Your task to perform on an android device: toggle wifi Image 0: 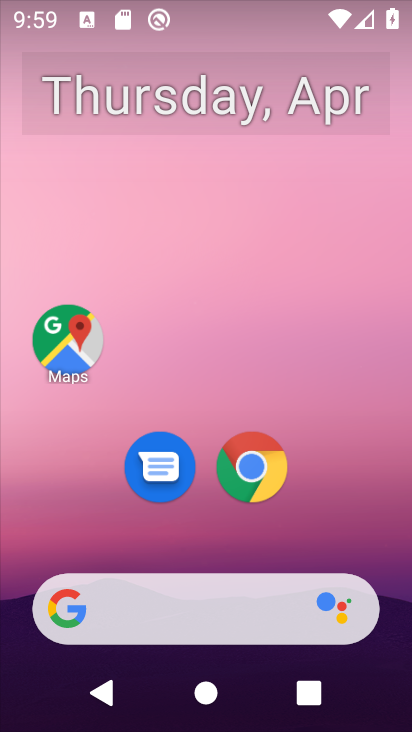
Step 0: drag from (331, 530) to (337, 125)
Your task to perform on an android device: toggle wifi Image 1: 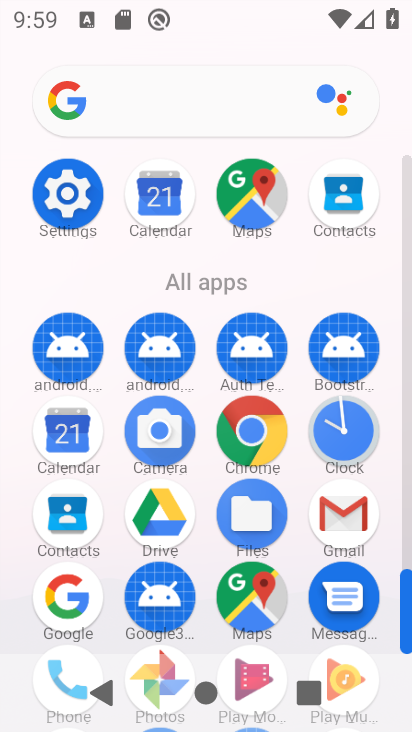
Step 1: click (66, 195)
Your task to perform on an android device: toggle wifi Image 2: 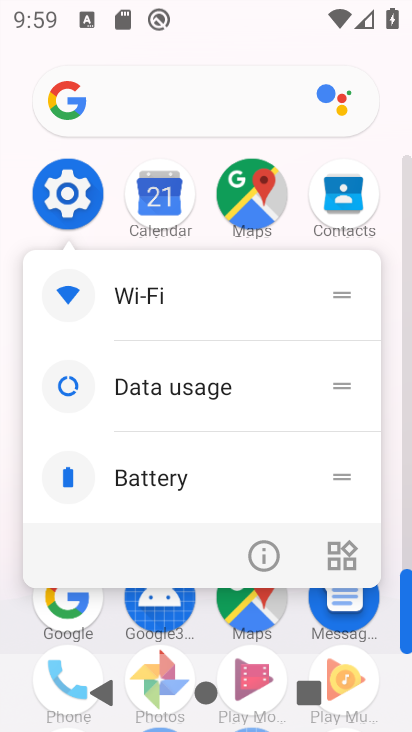
Step 2: click (66, 195)
Your task to perform on an android device: toggle wifi Image 3: 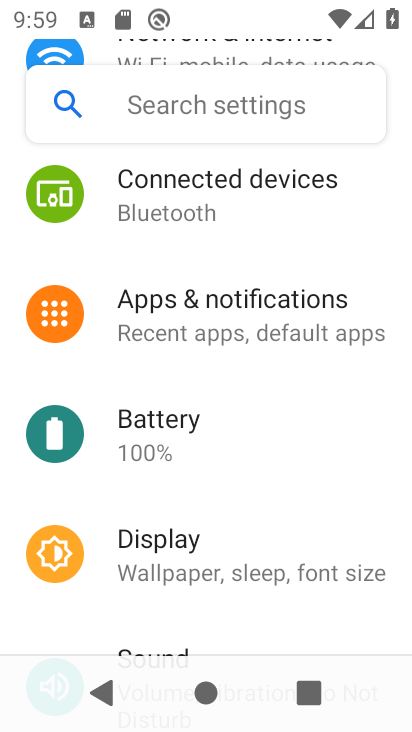
Step 3: drag from (267, 220) to (286, 572)
Your task to perform on an android device: toggle wifi Image 4: 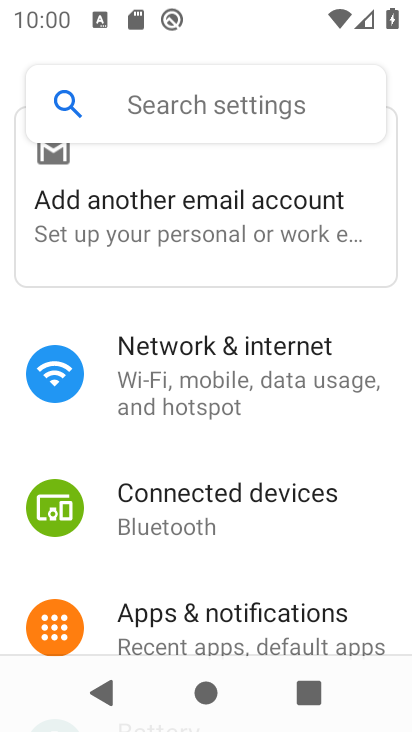
Step 4: click (249, 382)
Your task to perform on an android device: toggle wifi Image 5: 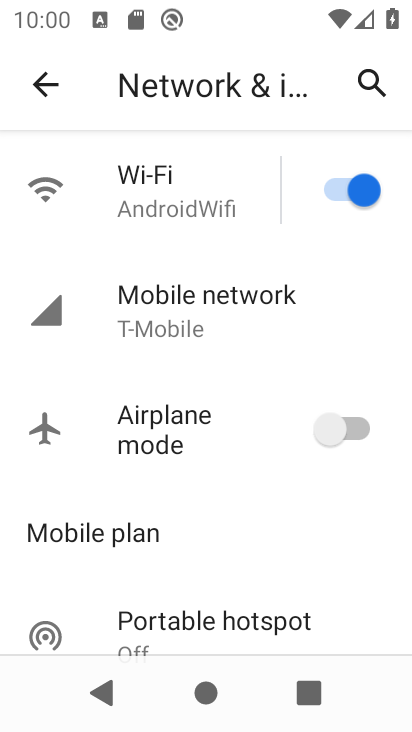
Step 5: click (333, 186)
Your task to perform on an android device: toggle wifi Image 6: 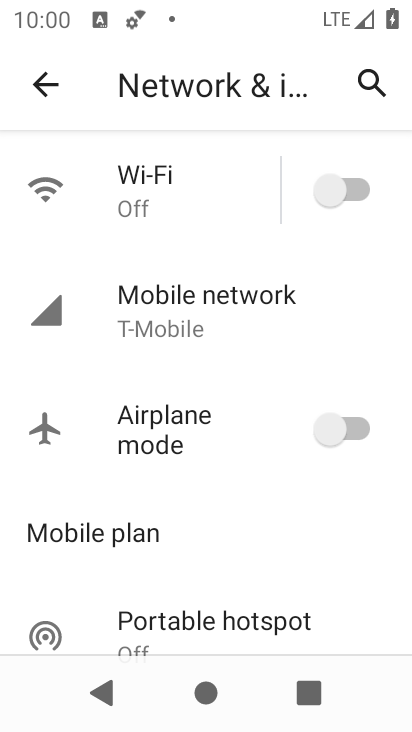
Step 6: task complete